Your task to perform on an android device: check out phone information Image 0: 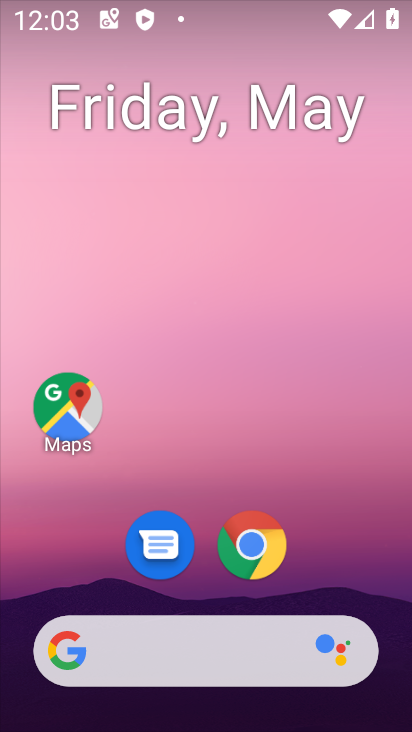
Step 0: drag from (339, 574) to (313, 188)
Your task to perform on an android device: check out phone information Image 1: 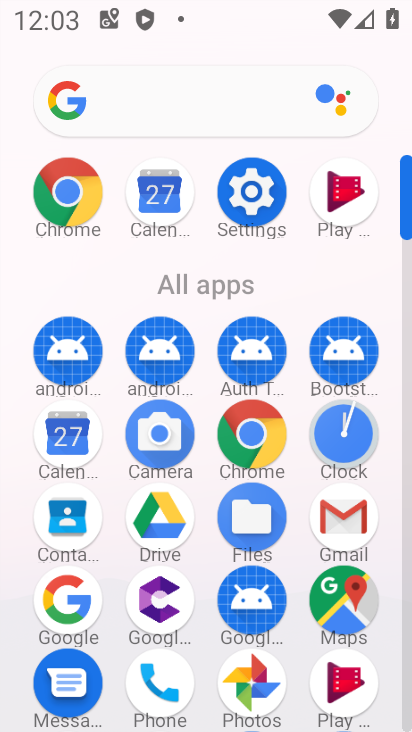
Step 1: click (253, 189)
Your task to perform on an android device: check out phone information Image 2: 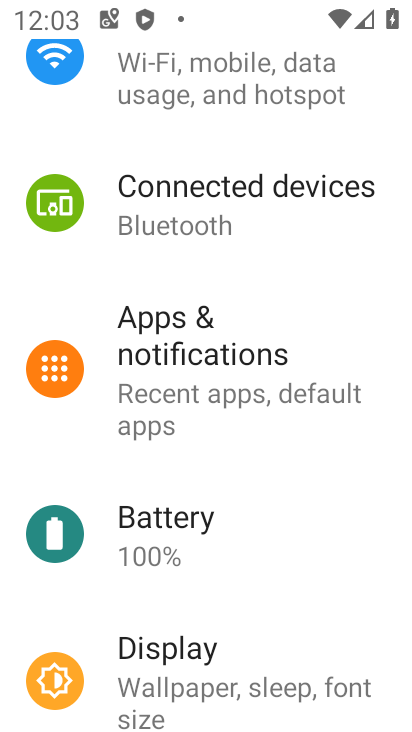
Step 2: drag from (247, 641) to (278, 230)
Your task to perform on an android device: check out phone information Image 3: 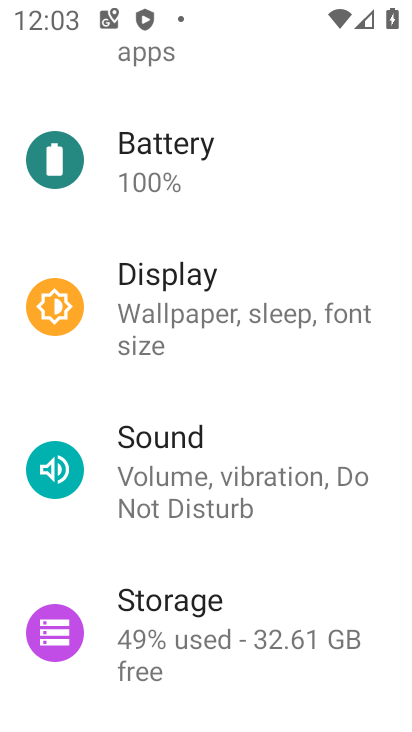
Step 3: drag from (262, 654) to (276, 148)
Your task to perform on an android device: check out phone information Image 4: 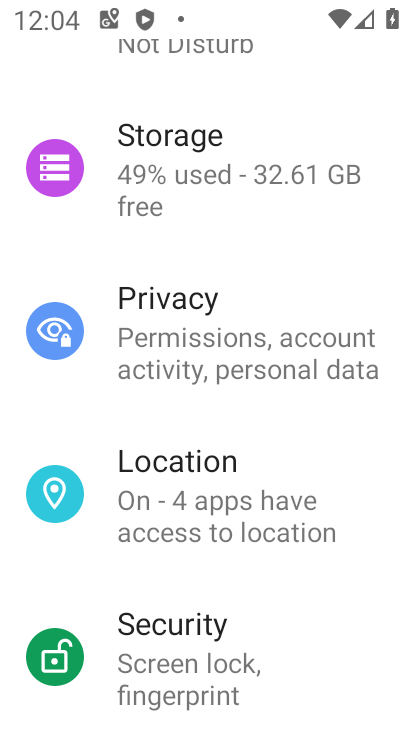
Step 4: drag from (201, 612) to (220, 189)
Your task to perform on an android device: check out phone information Image 5: 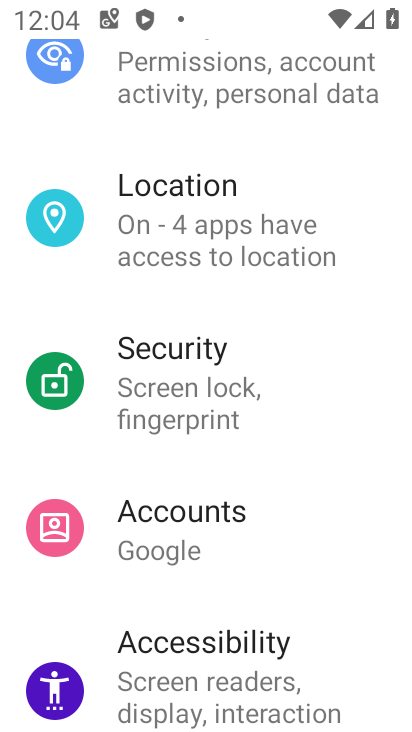
Step 5: drag from (262, 572) to (307, 147)
Your task to perform on an android device: check out phone information Image 6: 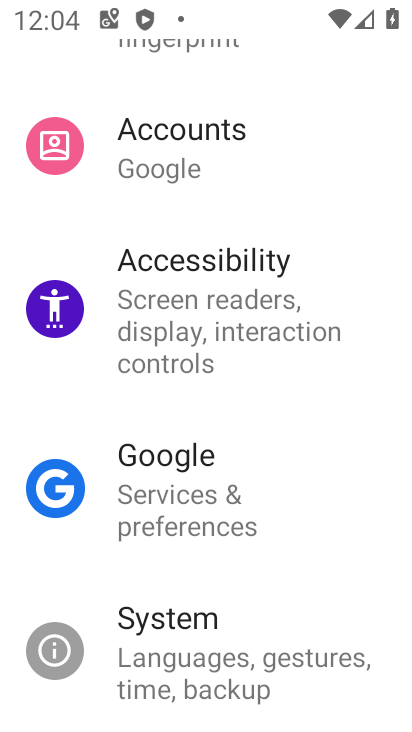
Step 6: click (237, 231)
Your task to perform on an android device: check out phone information Image 7: 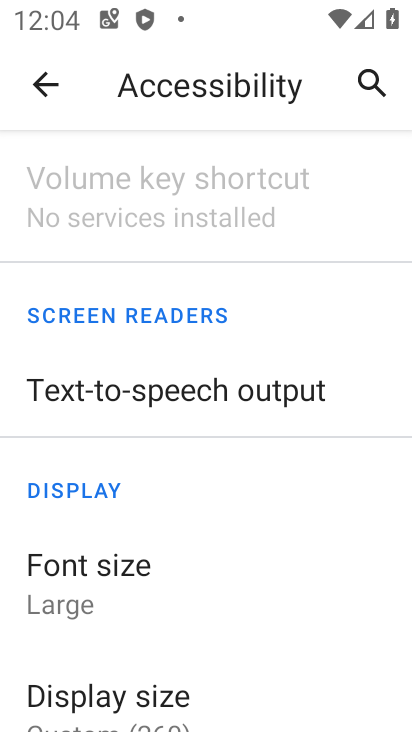
Step 7: click (44, 77)
Your task to perform on an android device: check out phone information Image 8: 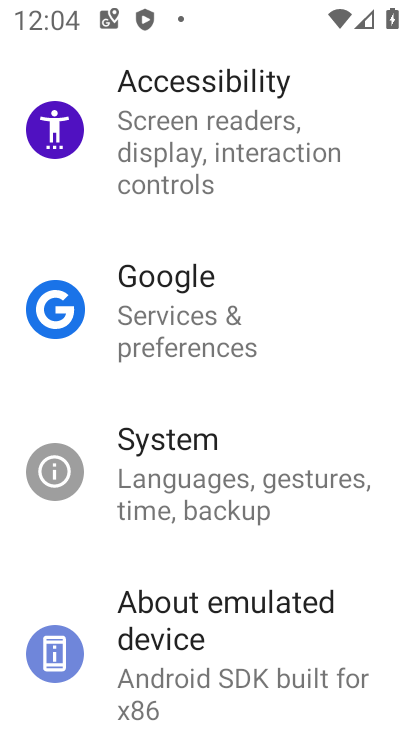
Step 8: task complete